Your task to perform on an android device: turn vacation reply on in the gmail app Image 0: 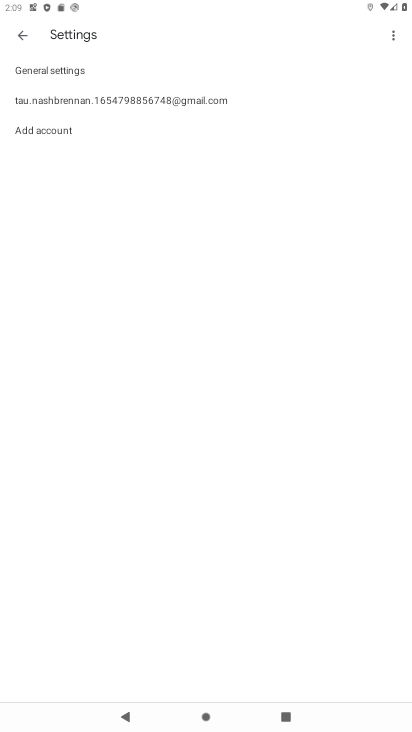
Step 0: press home button
Your task to perform on an android device: turn vacation reply on in the gmail app Image 1: 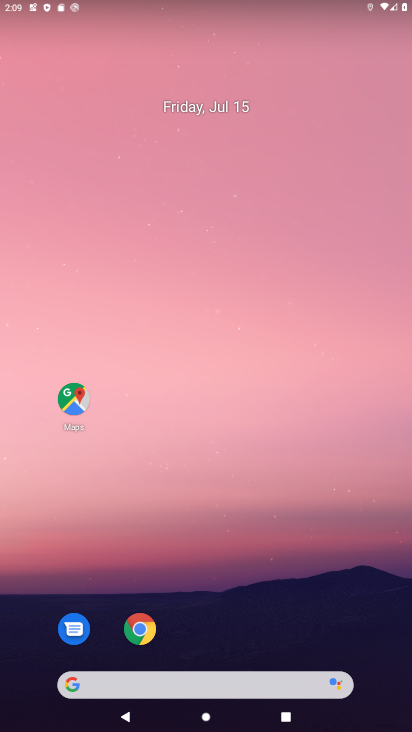
Step 1: drag from (207, 638) to (244, 103)
Your task to perform on an android device: turn vacation reply on in the gmail app Image 2: 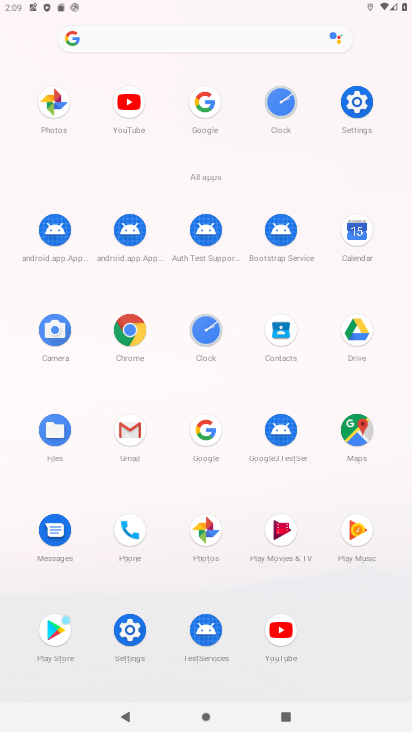
Step 2: click (131, 431)
Your task to perform on an android device: turn vacation reply on in the gmail app Image 3: 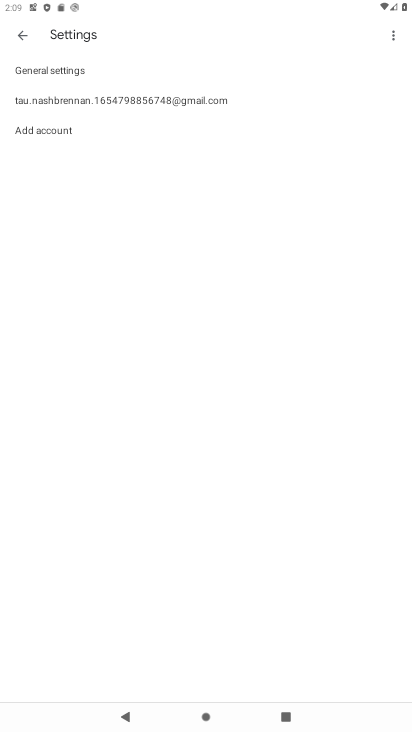
Step 3: click (174, 103)
Your task to perform on an android device: turn vacation reply on in the gmail app Image 4: 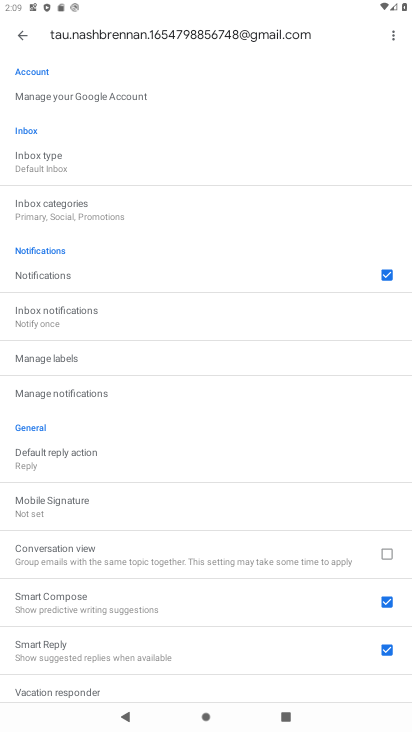
Step 4: drag from (128, 616) to (130, 329)
Your task to perform on an android device: turn vacation reply on in the gmail app Image 5: 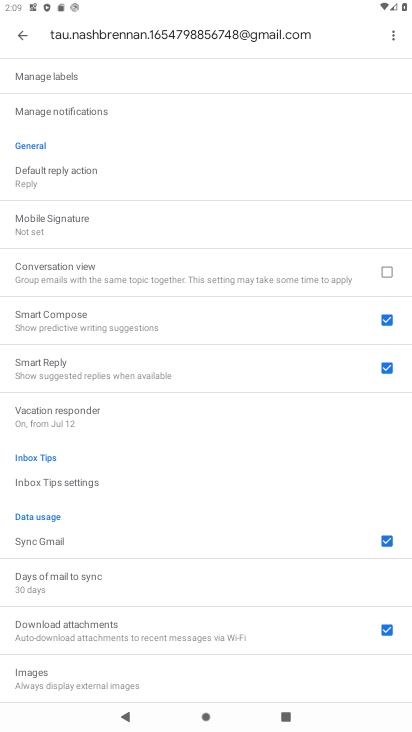
Step 5: click (59, 421)
Your task to perform on an android device: turn vacation reply on in the gmail app Image 6: 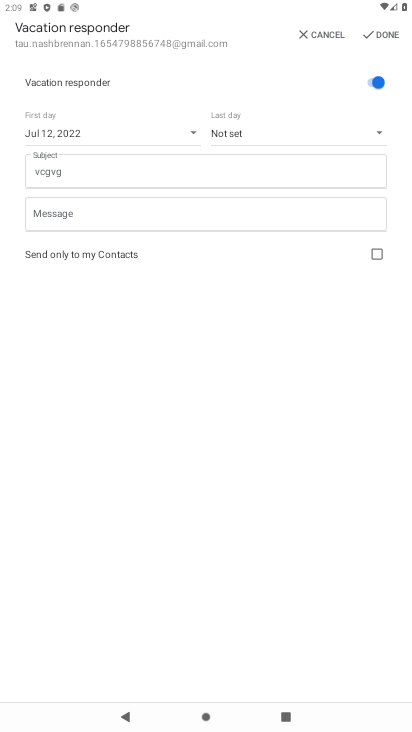
Step 6: task complete